Your task to perform on an android device: Play the last video I watched on Youtube Image 0: 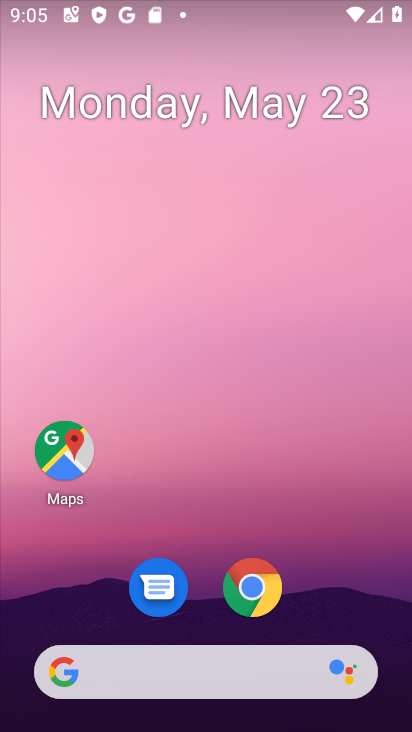
Step 0: drag from (219, 587) to (304, 53)
Your task to perform on an android device: Play the last video I watched on Youtube Image 1: 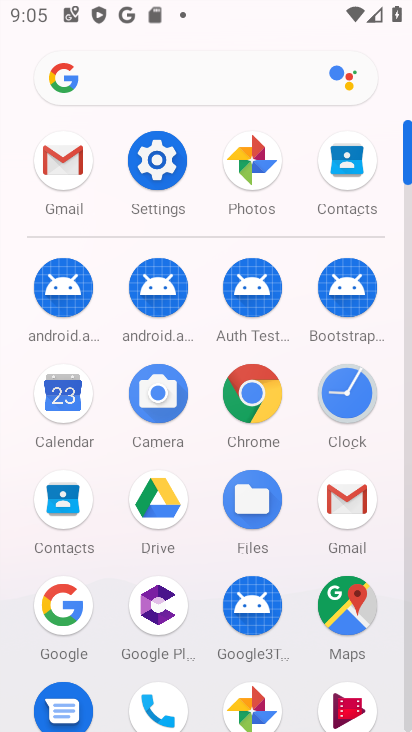
Step 1: drag from (250, 566) to (356, 16)
Your task to perform on an android device: Play the last video I watched on Youtube Image 2: 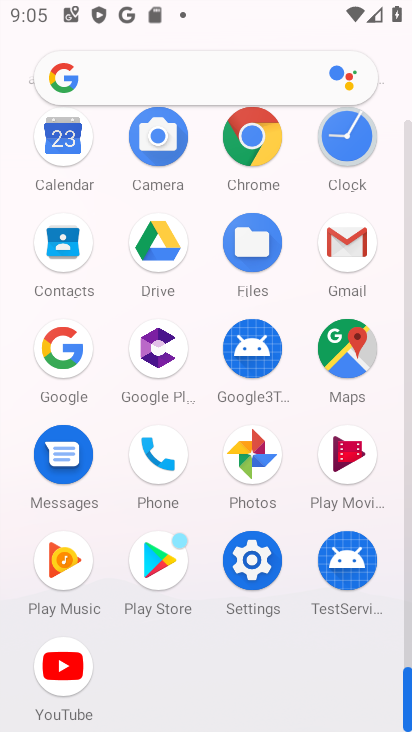
Step 2: click (53, 665)
Your task to perform on an android device: Play the last video I watched on Youtube Image 3: 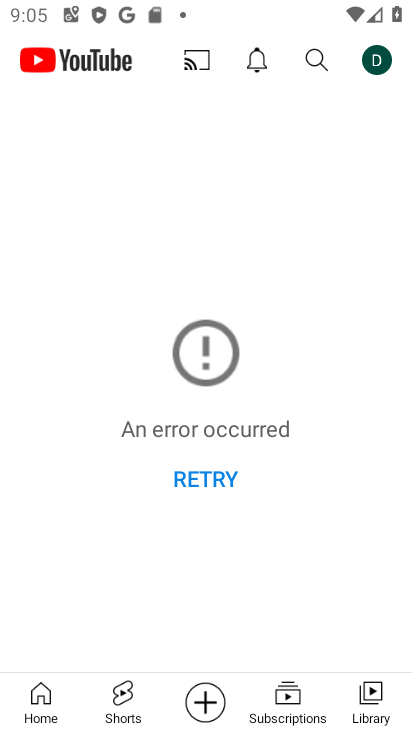
Step 3: click (384, 695)
Your task to perform on an android device: Play the last video I watched on Youtube Image 4: 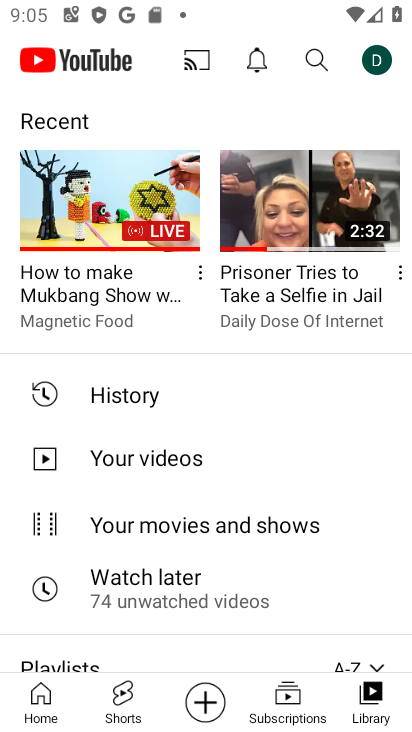
Step 4: click (85, 198)
Your task to perform on an android device: Play the last video I watched on Youtube Image 5: 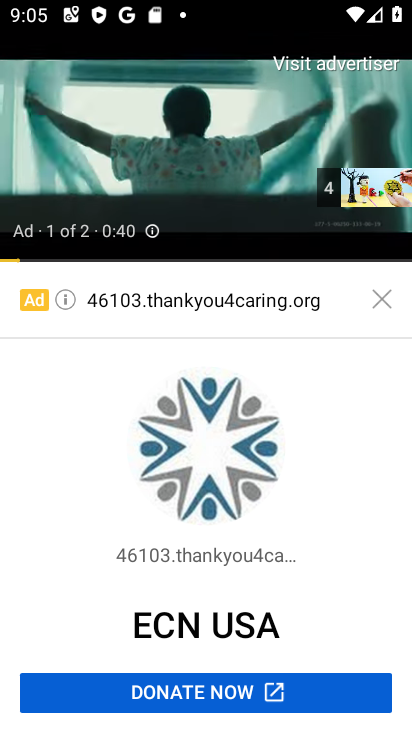
Step 5: task complete